Your task to perform on an android device: turn off smart reply in the gmail app Image 0: 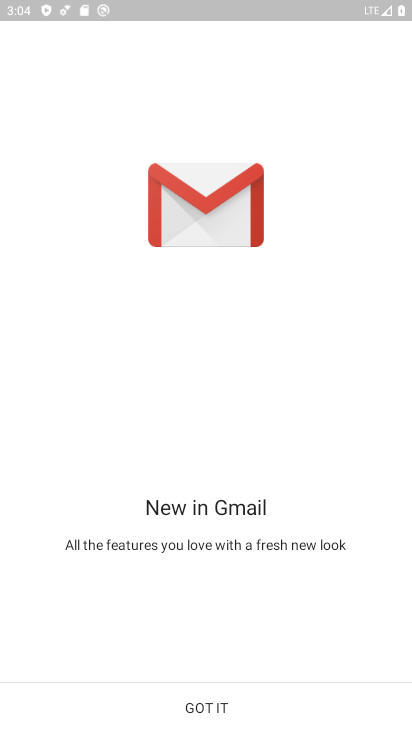
Step 0: click (218, 698)
Your task to perform on an android device: turn off smart reply in the gmail app Image 1: 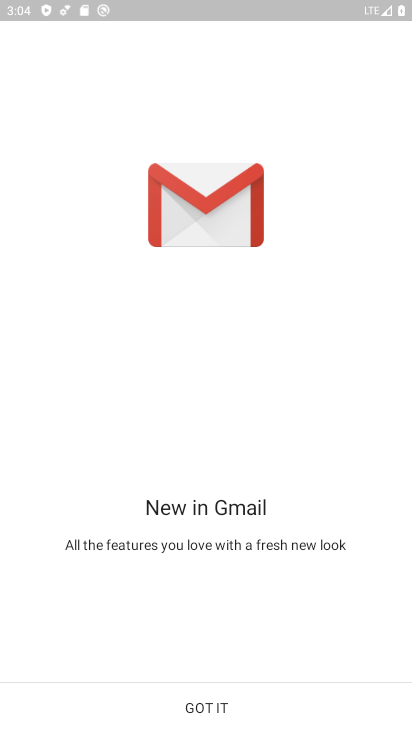
Step 1: click (218, 699)
Your task to perform on an android device: turn off smart reply in the gmail app Image 2: 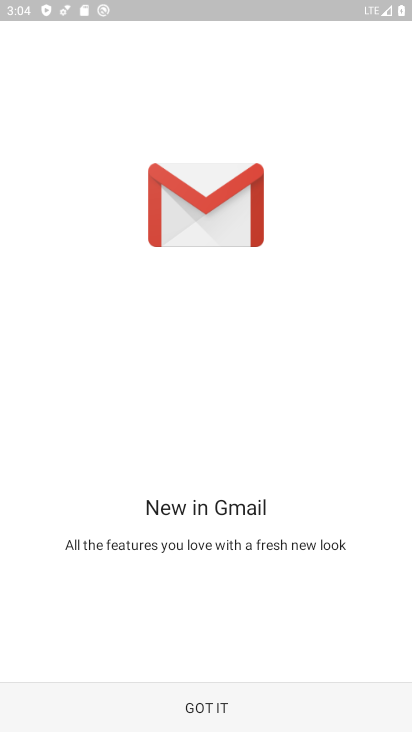
Step 2: click (218, 703)
Your task to perform on an android device: turn off smart reply in the gmail app Image 3: 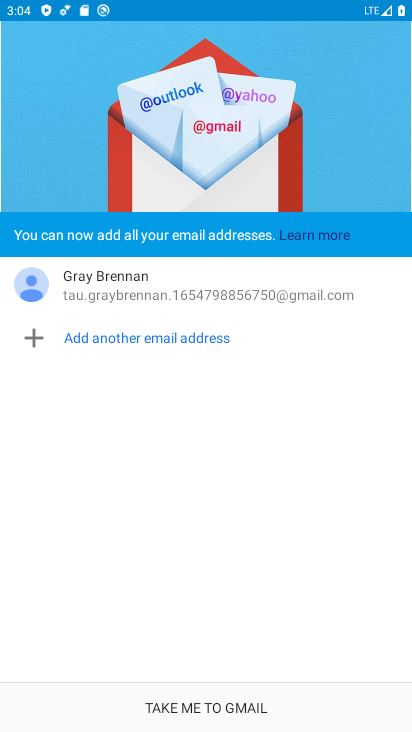
Step 3: click (223, 707)
Your task to perform on an android device: turn off smart reply in the gmail app Image 4: 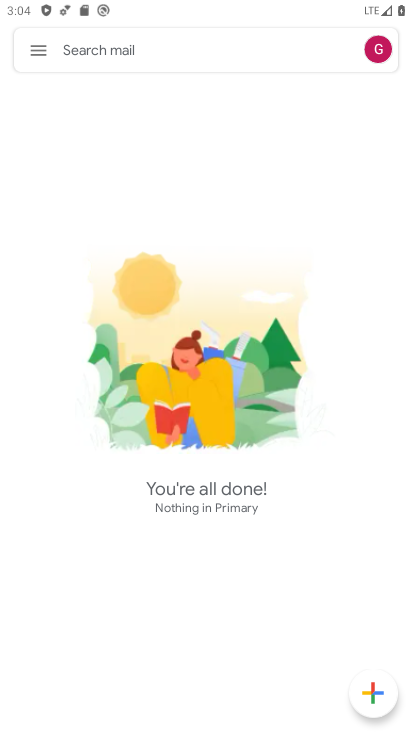
Step 4: click (45, 44)
Your task to perform on an android device: turn off smart reply in the gmail app Image 5: 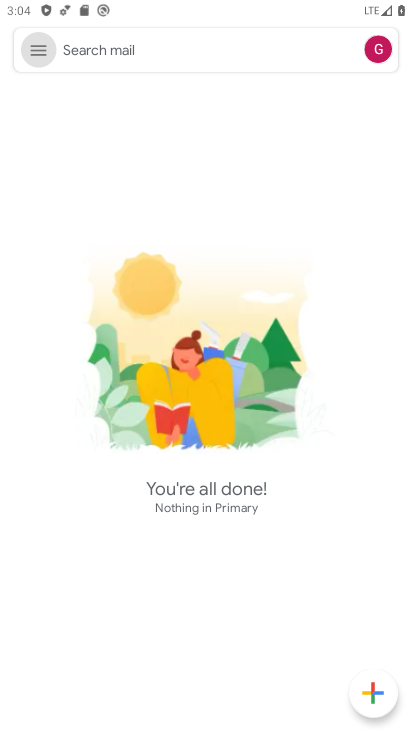
Step 5: click (43, 47)
Your task to perform on an android device: turn off smart reply in the gmail app Image 6: 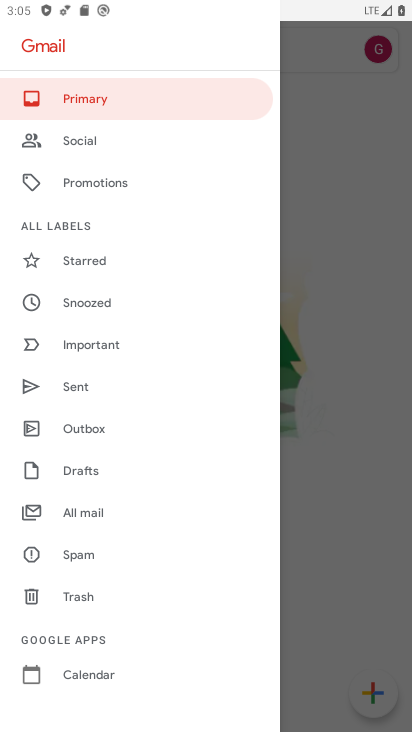
Step 6: drag from (87, 639) to (112, 248)
Your task to perform on an android device: turn off smart reply in the gmail app Image 7: 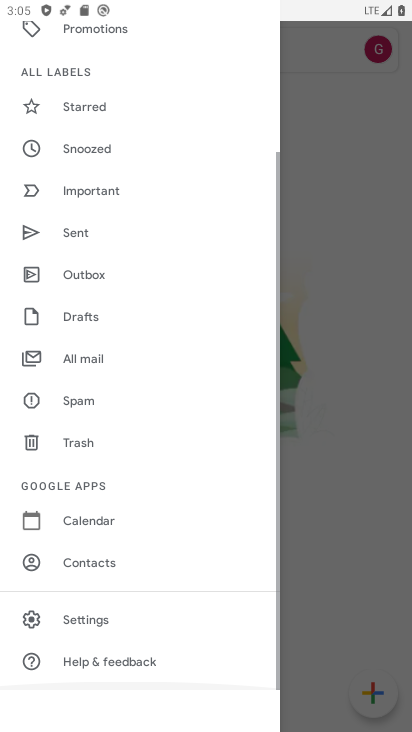
Step 7: drag from (104, 570) to (136, 65)
Your task to perform on an android device: turn off smart reply in the gmail app Image 8: 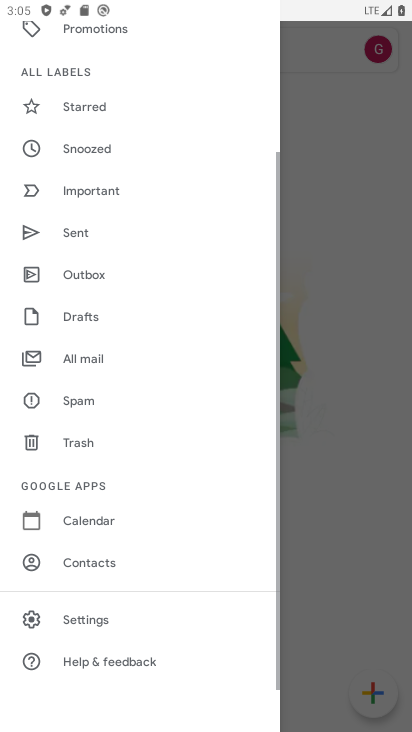
Step 8: click (80, 607)
Your task to perform on an android device: turn off smart reply in the gmail app Image 9: 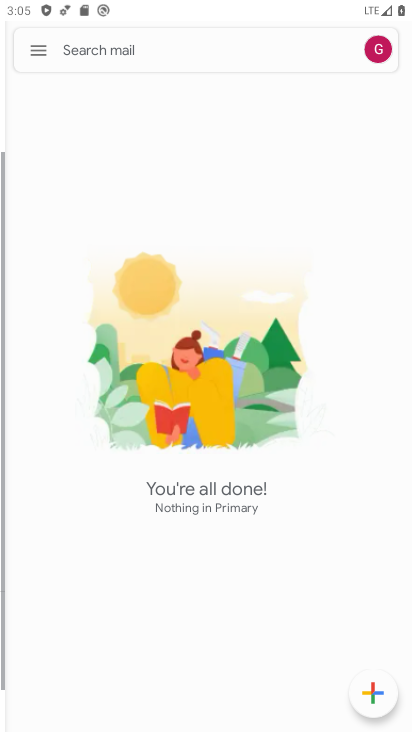
Step 9: click (73, 616)
Your task to perform on an android device: turn off smart reply in the gmail app Image 10: 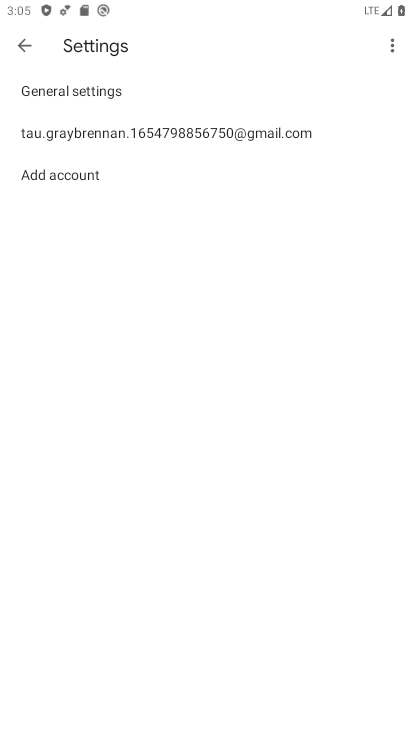
Step 10: click (119, 136)
Your task to perform on an android device: turn off smart reply in the gmail app Image 11: 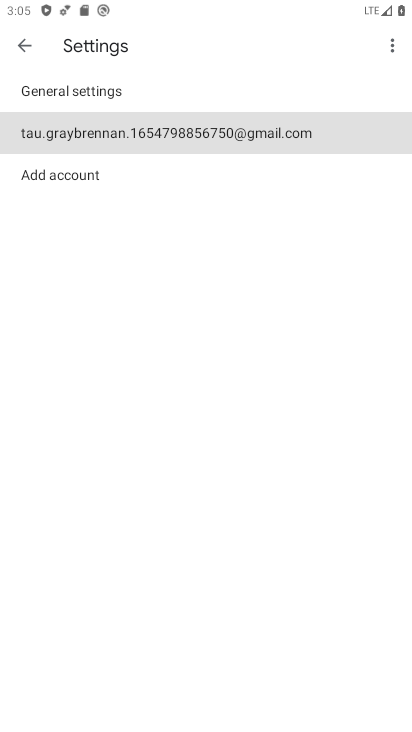
Step 11: click (127, 130)
Your task to perform on an android device: turn off smart reply in the gmail app Image 12: 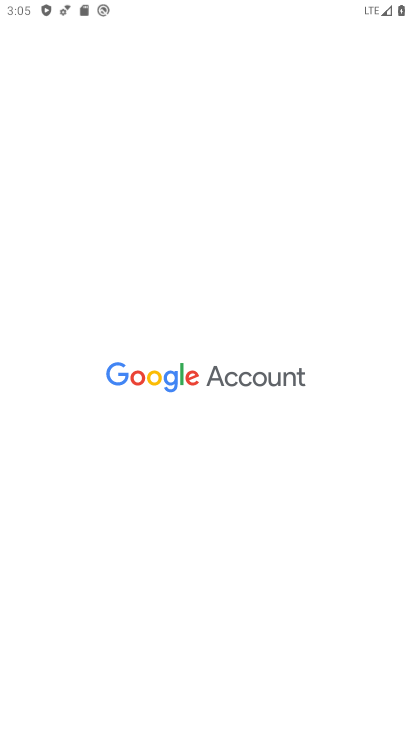
Step 12: drag from (122, 484) to (114, 168)
Your task to perform on an android device: turn off smart reply in the gmail app Image 13: 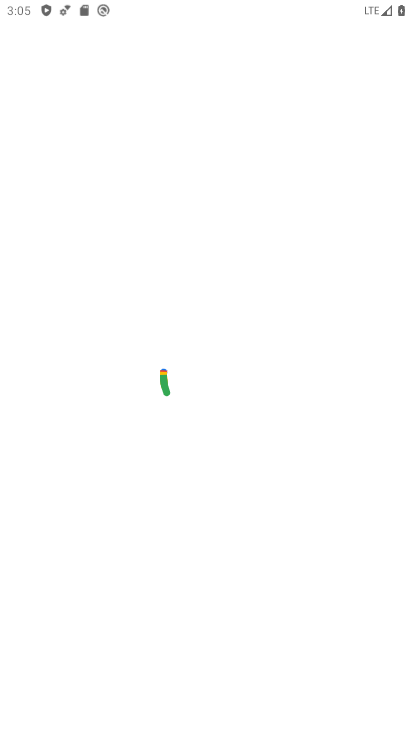
Step 13: press back button
Your task to perform on an android device: turn off smart reply in the gmail app Image 14: 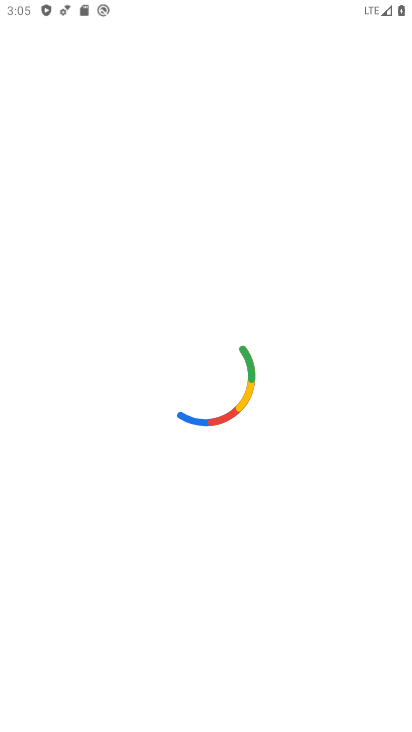
Step 14: press back button
Your task to perform on an android device: turn off smart reply in the gmail app Image 15: 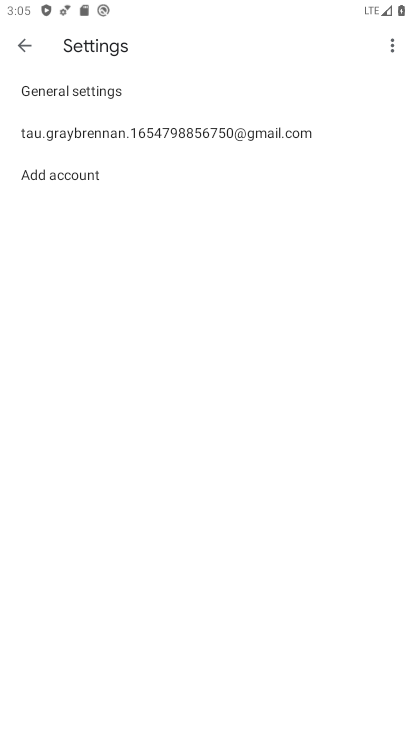
Step 15: click (85, 134)
Your task to perform on an android device: turn off smart reply in the gmail app Image 16: 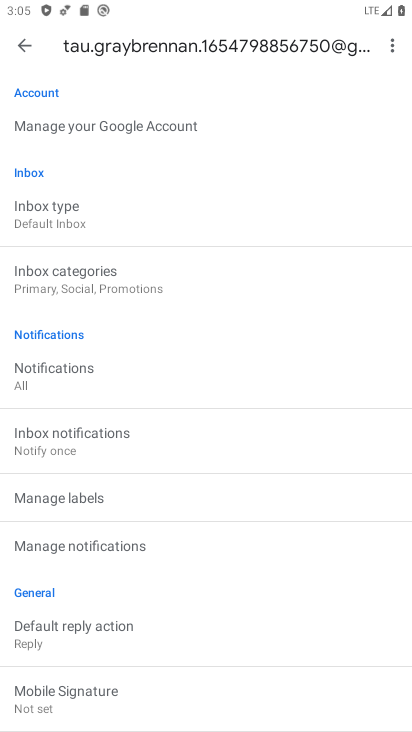
Step 16: drag from (75, 633) to (107, 233)
Your task to perform on an android device: turn off smart reply in the gmail app Image 17: 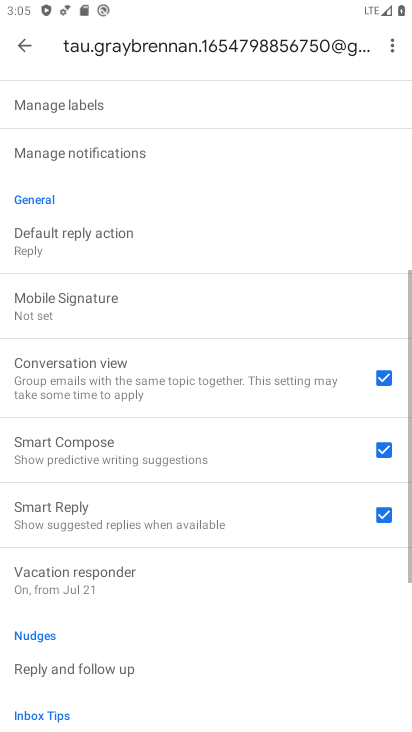
Step 17: drag from (110, 499) to (113, 100)
Your task to perform on an android device: turn off smart reply in the gmail app Image 18: 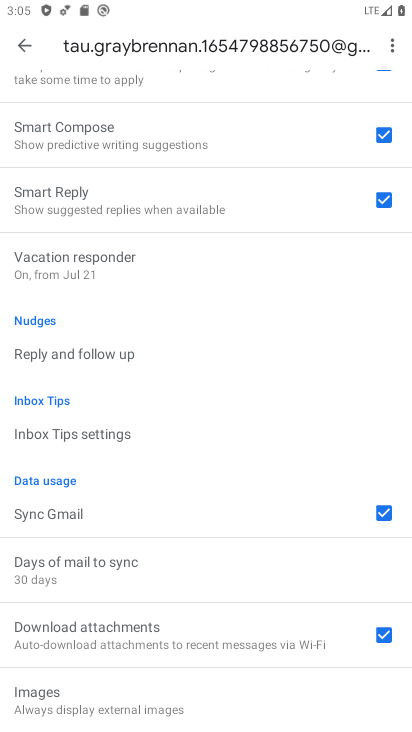
Step 18: drag from (100, 553) to (107, 240)
Your task to perform on an android device: turn off smart reply in the gmail app Image 19: 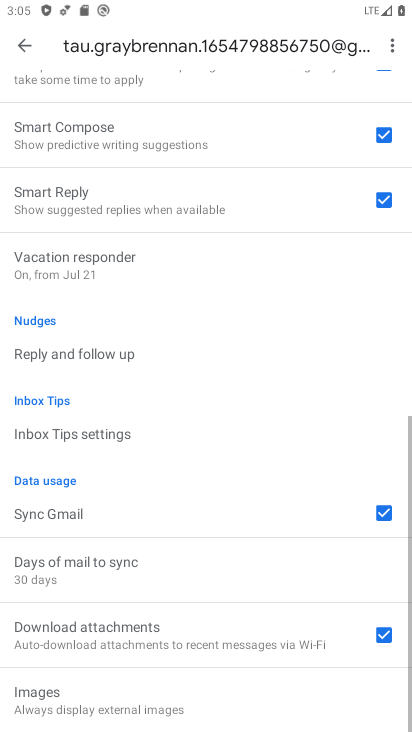
Step 19: drag from (218, 538) to (211, 63)
Your task to perform on an android device: turn off smart reply in the gmail app Image 20: 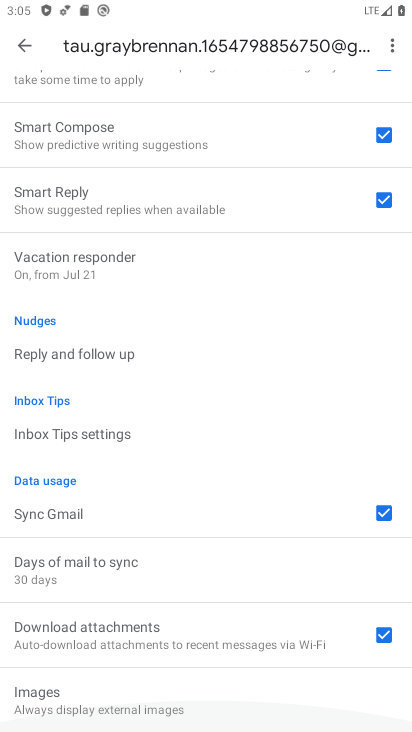
Step 20: drag from (227, 435) to (241, 207)
Your task to perform on an android device: turn off smart reply in the gmail app Image 21: 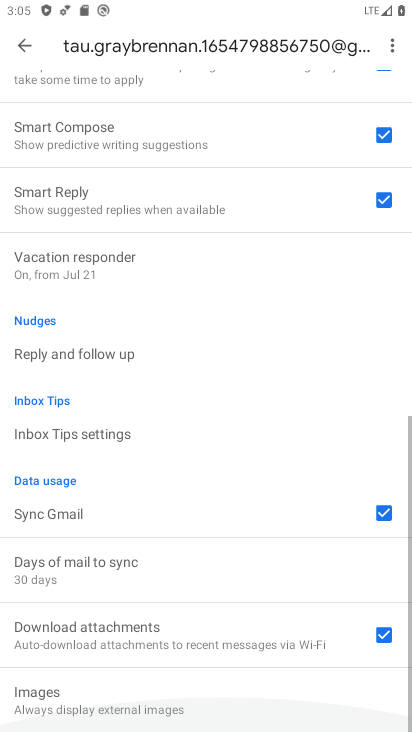
Step 21: drag from (233, 507) to (274, 209)
Your task to perform on an android device: turn off smart reply in the gmail app Image 22: 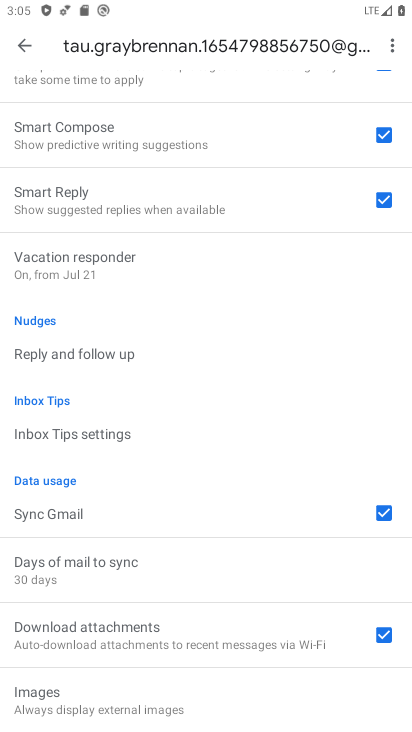
Step 22: drag from (129, 559) to (127, 203)
Your task to perform on an android device: turn off smart reply in the gmail app Image 23: 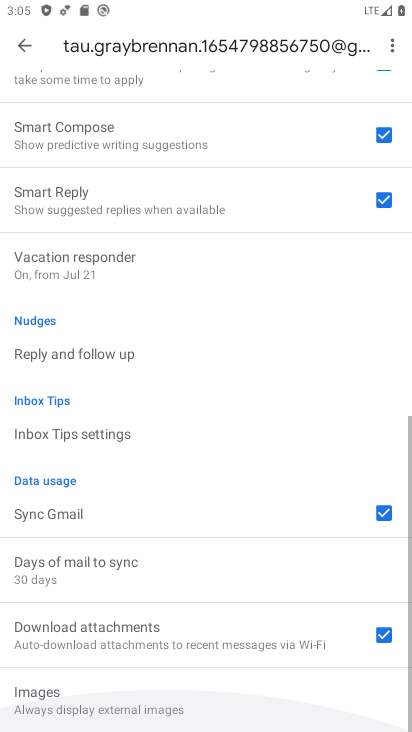
Step 23: drag from (135, 615) to (136, 207)
Your task to perform on an android device: turn off smart reply in the gmail app Image 24: 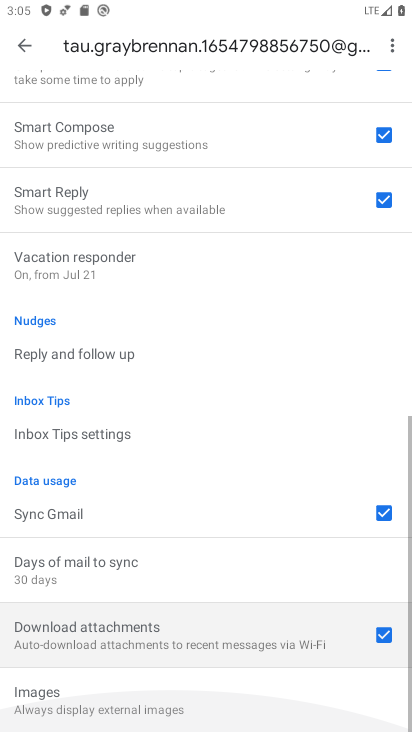
Step 24: drag from (84, 595) to (68, 177)
Your task to perform on an android device: turn off smart reply in the gmail app Image 25: 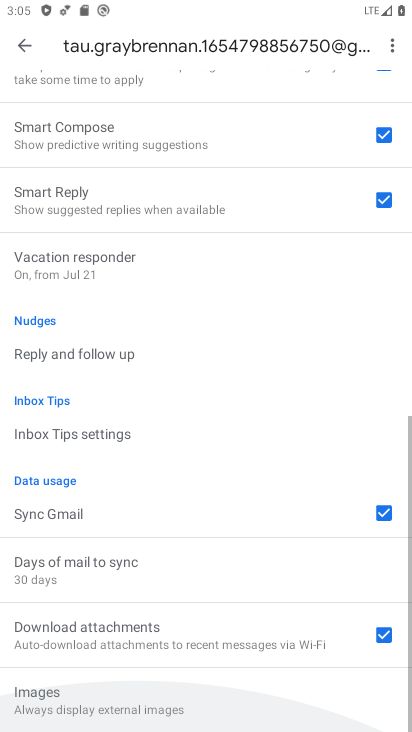
Step 25: drag from (121, 656) to (136, 281)
Your task to perform on an android device: turn off smart reply in the gmail app Image 26: 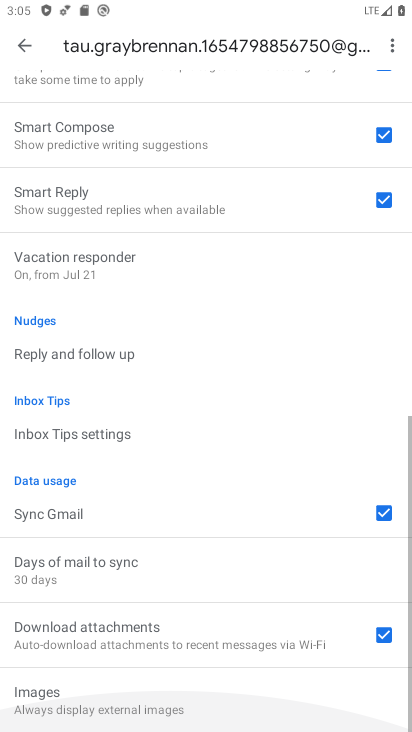
Step 26: drag from (220, 557) to (212, 263)
Your task to perform on an android device: turn off smart reply in the gmail app Image 27: 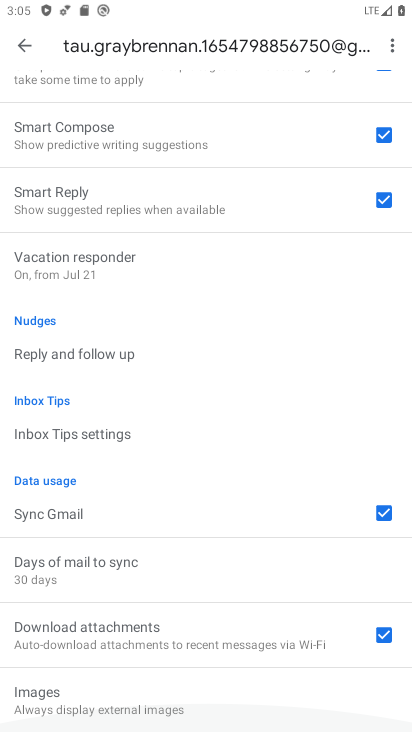
Step 27: drag from (202, 483) to (181, 11)
Your task to perform on an android device: turn off smart reply in the gmail app Image 28: 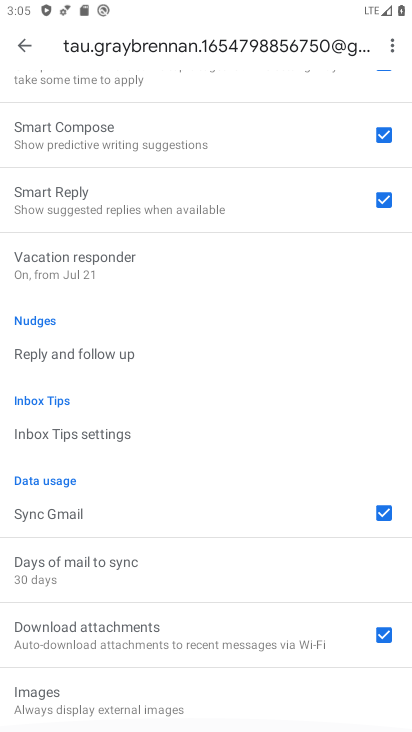
Step 28: click (142, 443)
Your task to perform on an android device: turn off smart reply in the gmail app Image 29: 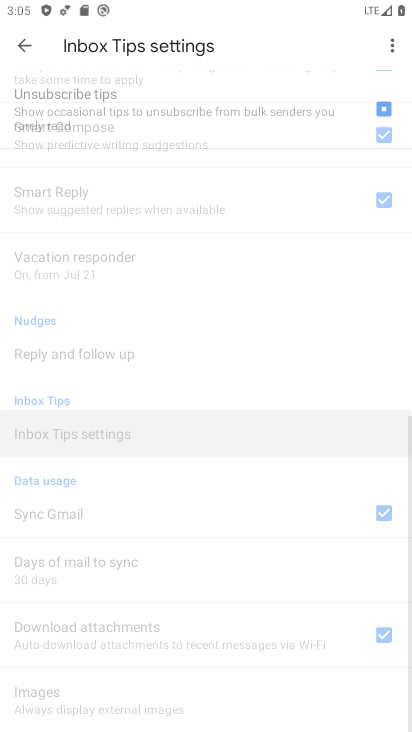
Step 29: drag from (48, 607) to (18, 416)
Your task to perform on an android device: turn off smart reply in the gmail app Image 30: 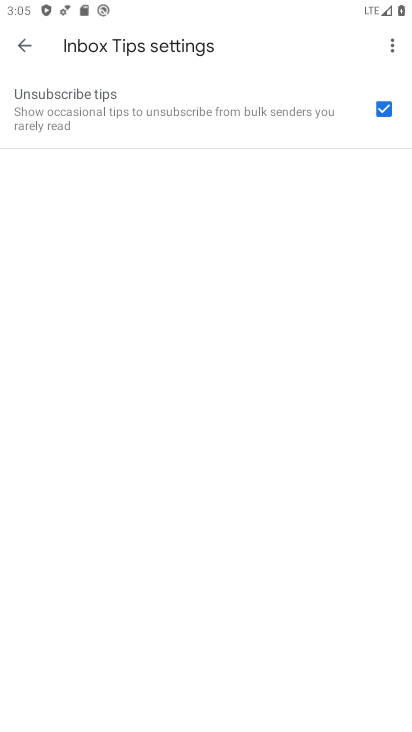
Step 30: click (13, 30)
Your task to perform on an android device: turn off smart reply in the gmail app Image 31: 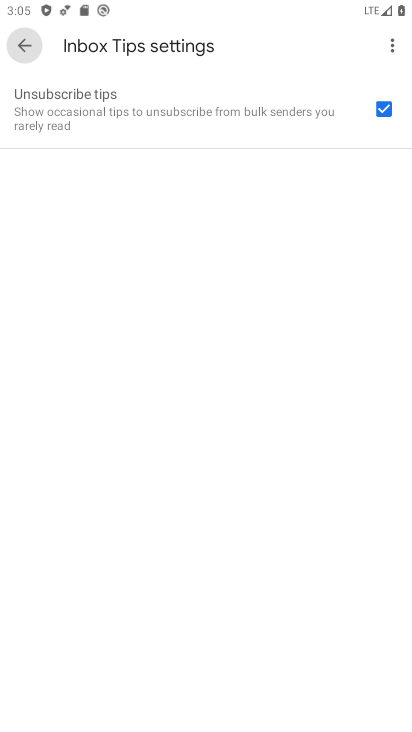
Step 31: click (30, 53)
Your task to perform on an android device: turn off smart reply in the gmail app Image 32: 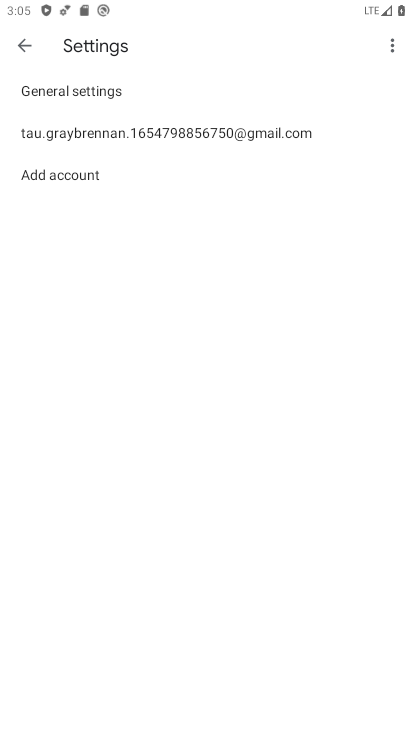
Step 32: click (86, 132)
Your task to perform on an android device: turn off smart reply in the gmail app Image 33: 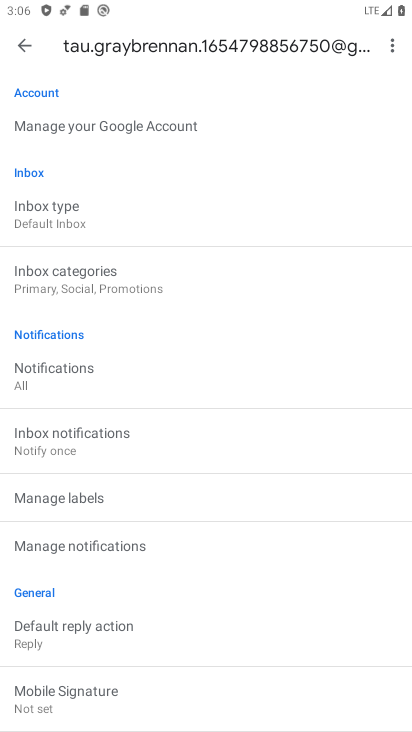
Step 33: drag from (29, 518) to (83, 58)
Your task to perform on an android device: turn off smart reply in the gmail app Image 34: 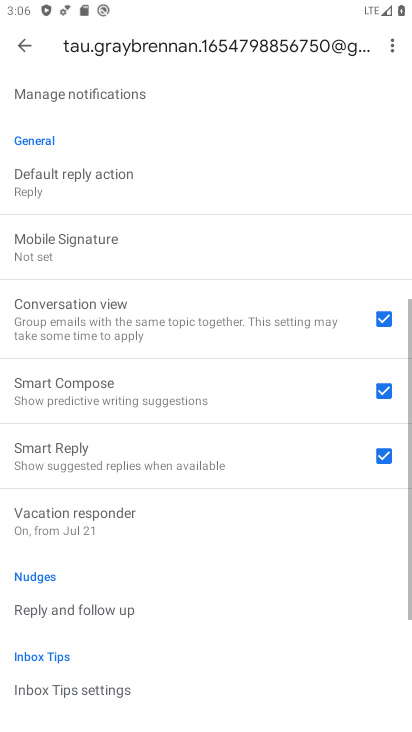
Step 34: drag from (106, 366) to (71, 52)
Your task to perform on an android device: turn off smart reply in the gmail app Image 35: 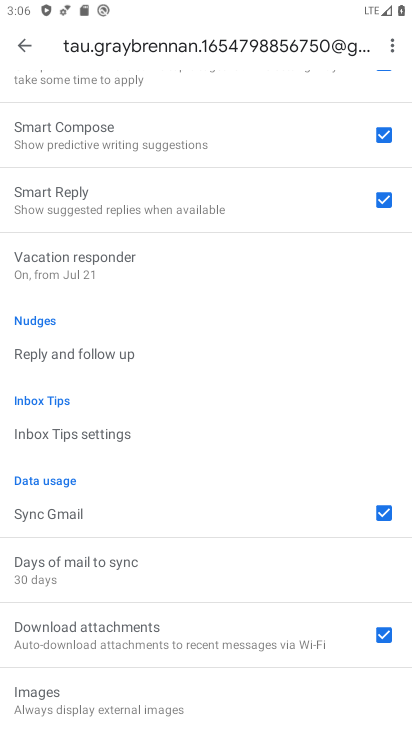
Step 35: click (380, 201)
Your task to perform on an android device: turn off smart reply in the gmail app Image 36: 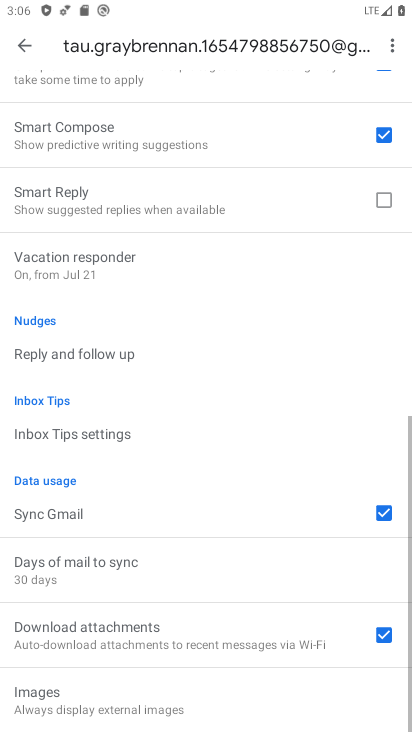
Step 36: task complete